Your task to perform on an android device: Go to Google maps Image 0: 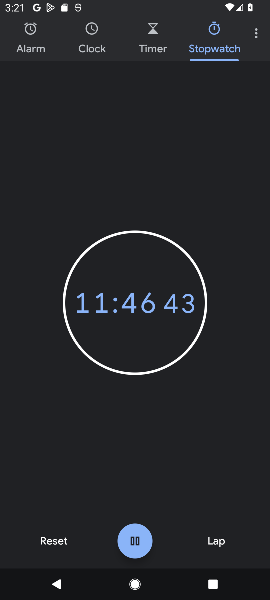
Step 0: press home button
Your task to perform on an android device: Go to Google maps Image 1: 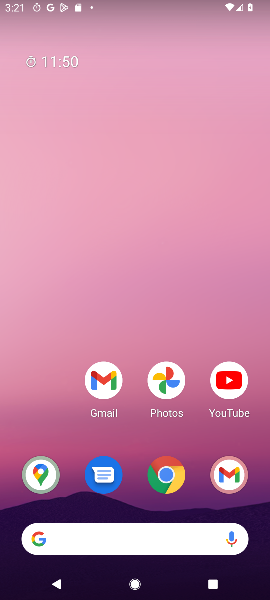
Step 1: drag from (45, 423) to (35, 164)
Your task to perform on an android device: Go to Google maps Image 2: 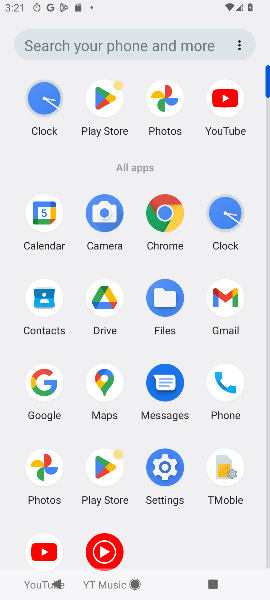
Step 2: click (103, 381)
Your task to perform on an android device: Go to Google maps Image 3: 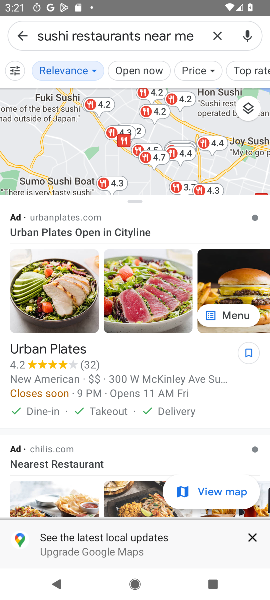
Step 3: task complete